Your task to perform on an android device: change the clock display to analog Image 0: 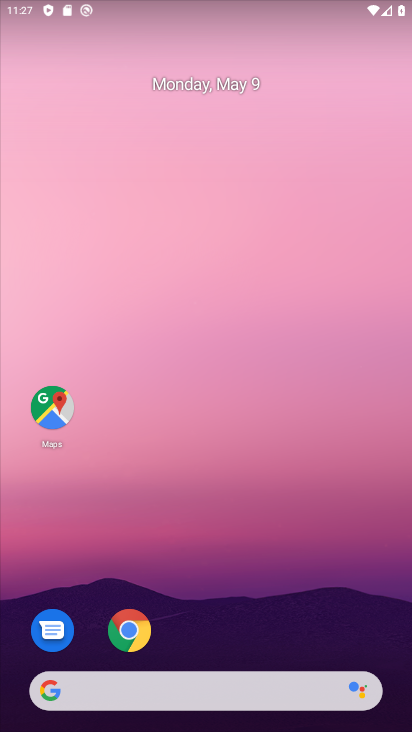
Step 0: drag from (271, 296) to (328, 135)
Your task to perform on an android device: change the clock display to analog Image 1: 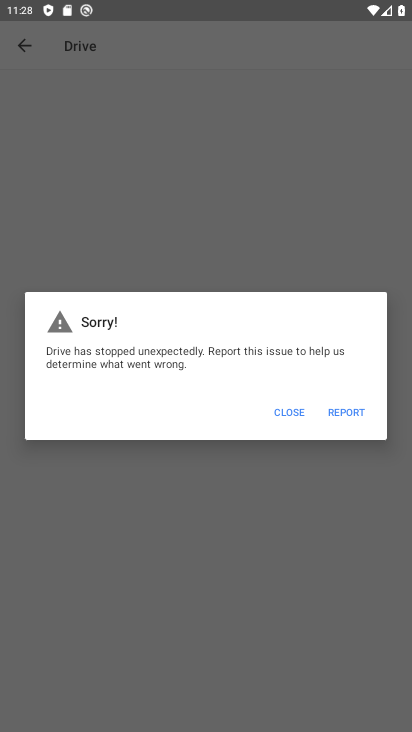
Step 1: press home button
Your task to perform on an android device: change the clock display to analog Image 2: 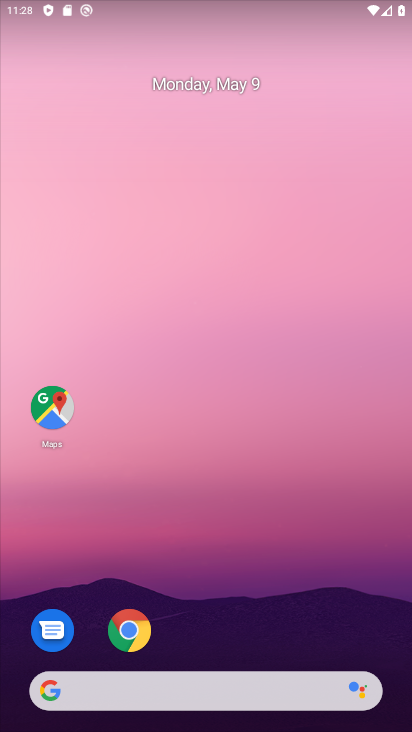
Step 2: drag from (167, 687) to (282, 332)
Your task to perform on an android device: change the clock display to analog Image 3: 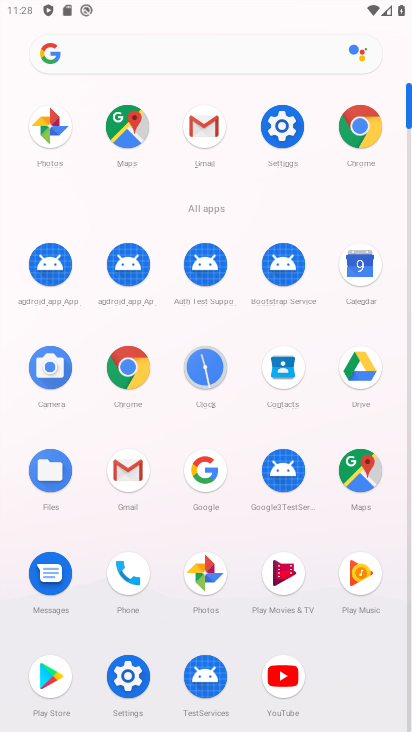
Step 3: click (207, 378)
Your task to perform on an android device: change the clock display to analog Image 4: 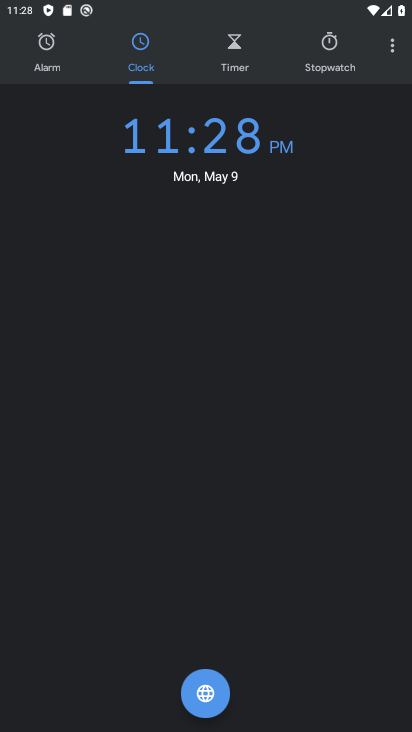
Step 4: click (392, 48)
Your task to perform on an android device: change the clock display to analog Image 5: 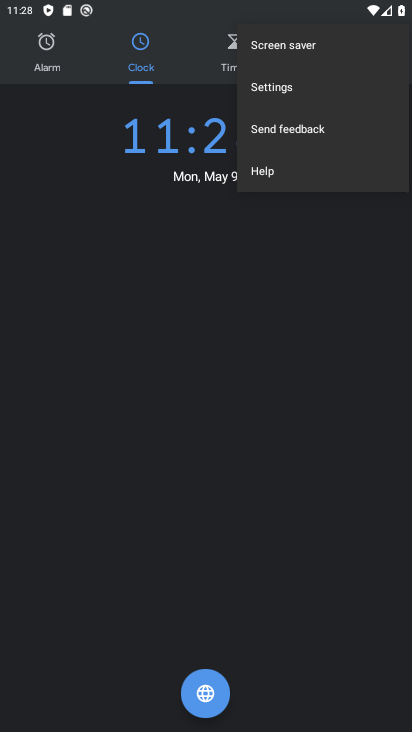
Step 5: click (282, 85)
Your task to perform on an android device: change the clock display to analog Image 6: 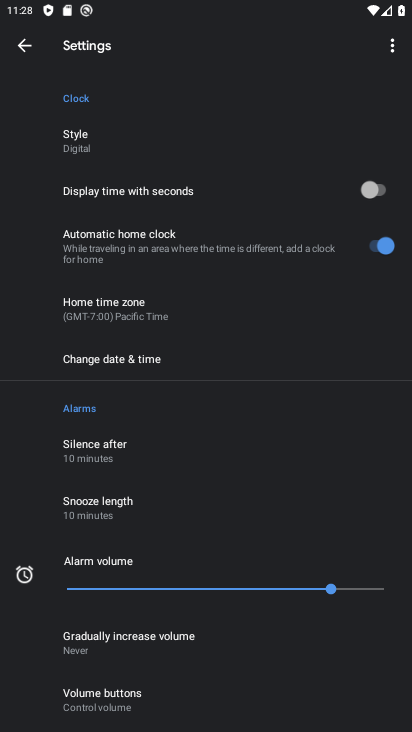
Step 6: click (73, 149)
Your task to perform on an android device: change the clock display to analog Image 7: 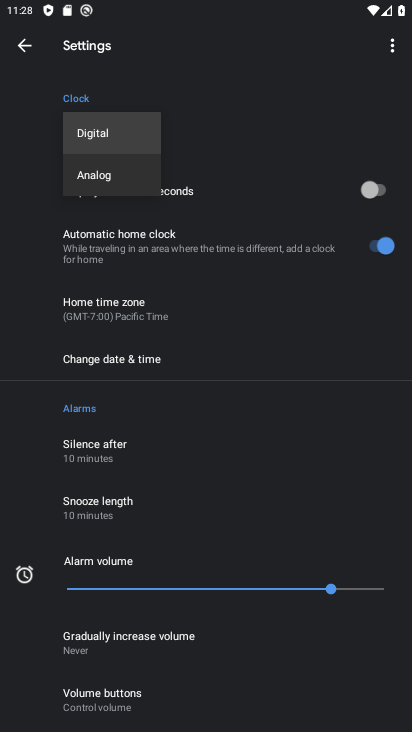
Step 7: click (113, 173)
Your task to perform on an android device: change the clock display to analog Image 8: 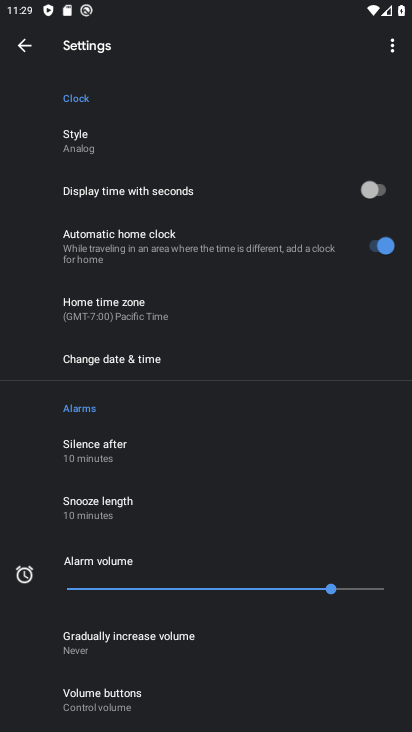
Step 8: task complete